Your task to perform on an android device: Go to settings Image 0: 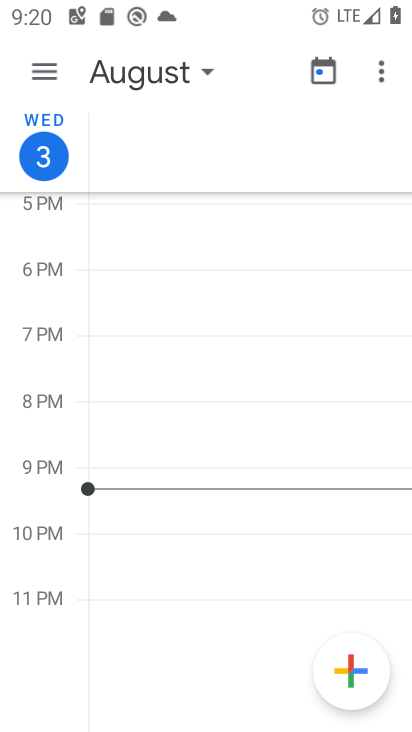
Step 0: press home button
Your task to perform on an android device: Go to settings Image 1: 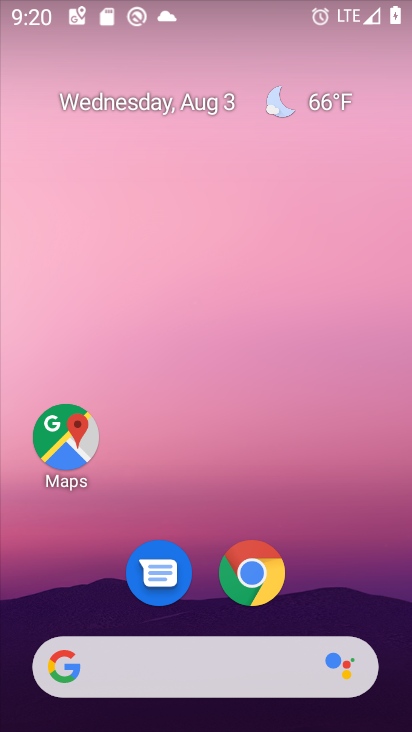
Step 1: drag from (337, 578) to (362, 45)
Your task to perform on an android device: Go to settings Image 2: 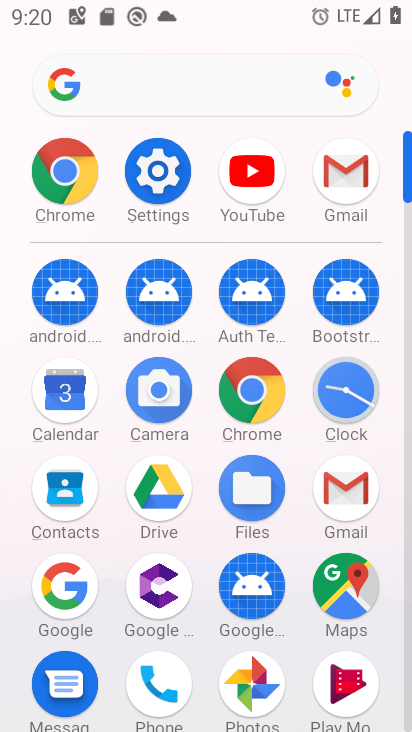
Step 2: click (171, 182)
Your task to perform on an android device: Go to settings Image 3: 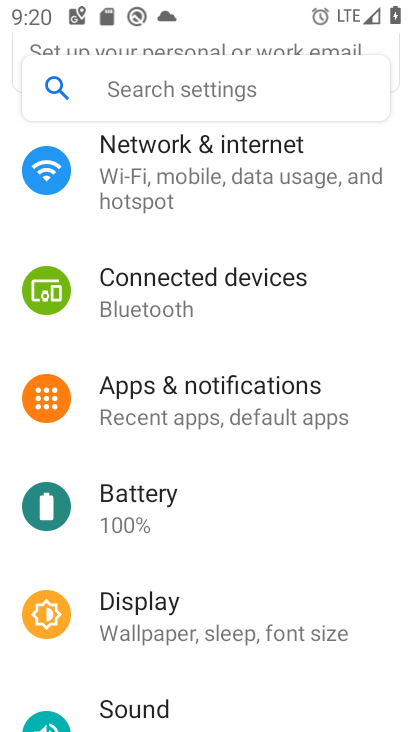
Step 3: task complete